Your task to perform on an android device: check google app version Image 0: 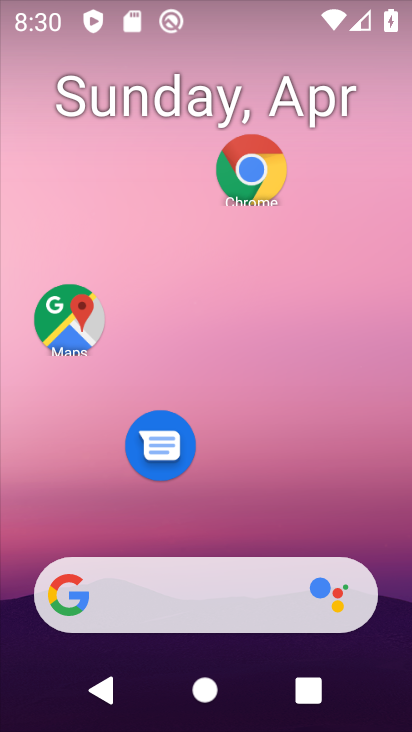
Step 0: drag from (269, 507) to (270, 24)
Your task to perform on an android device: check google app version Image 1: 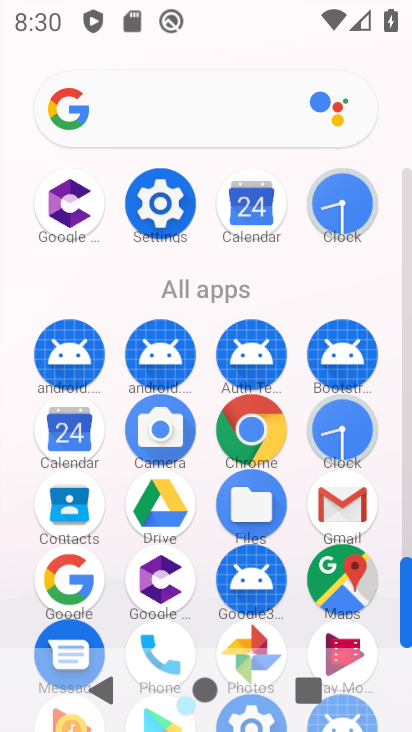
Step 1: click (77, 583)
Your task to perform on an android device: check google app version Image 2: 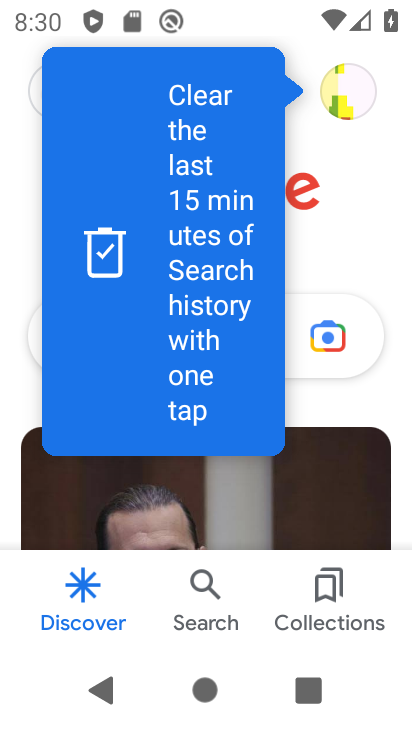
Step 2: click (351, 90)
Your task to perform on an android device: check google app version Image 3: 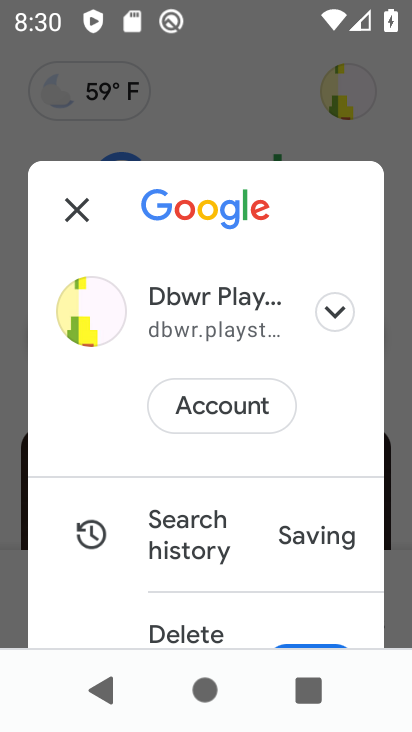
Step 3: drag from (284, 587) to (262, 45)
Your task to perform on an android device: check google app version Image 4: 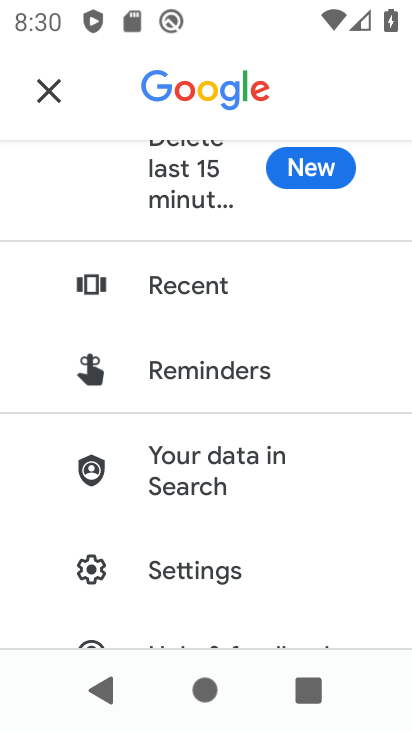
Step 4: drag from (249, 539) to (256, 397)
Your task to perform on an android device: check google app version Image 5: 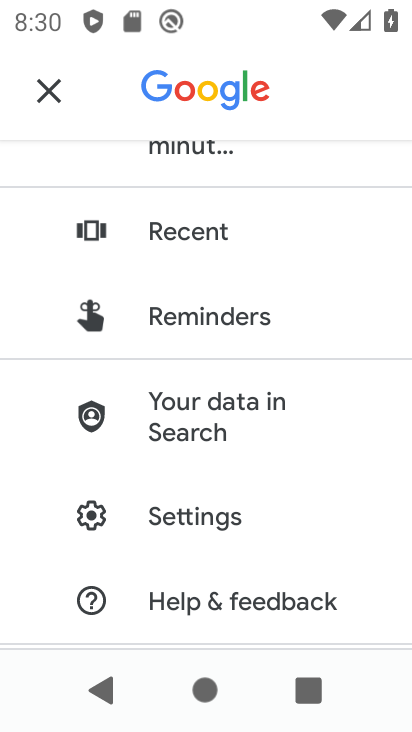
Step 5: click (197, 513)
Your task to perform on an android device: check google app version Image 6: 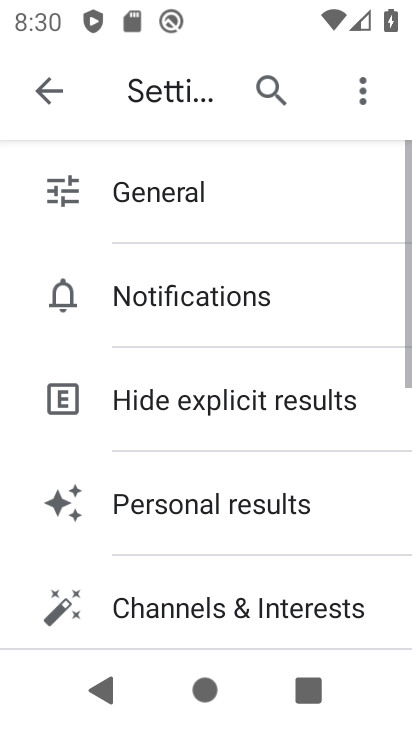
Step 6: drag from (225, 518) to (223, 8)
Your task to perform on an android device: check google app version Image 7: 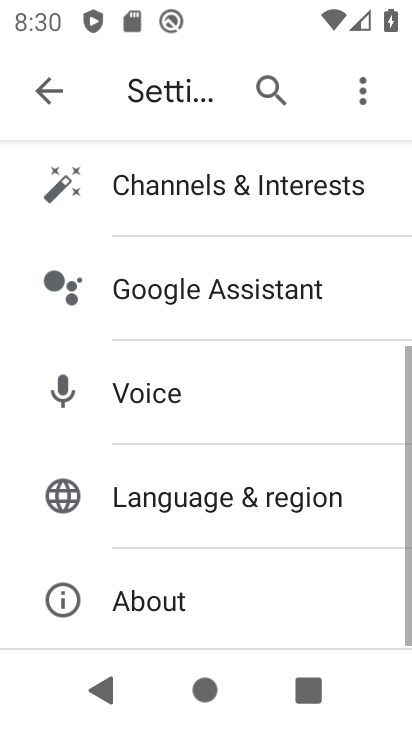
Step 7: click (205, 619)
Your task to perform on an android device: check google app version Image 8: 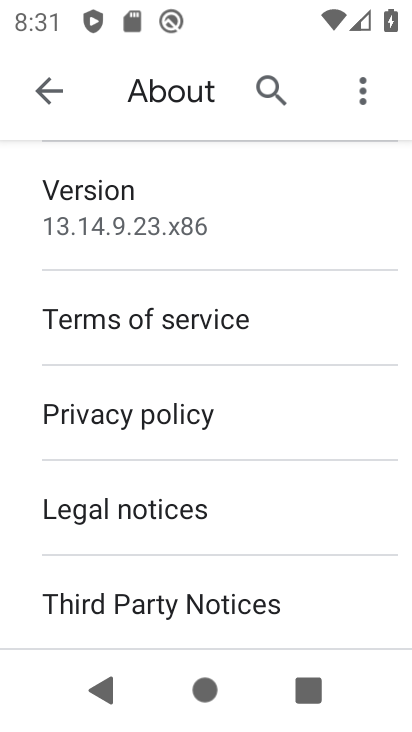
Step 8: task complete